Your task to perform on an android device: Open location settings Image 0: 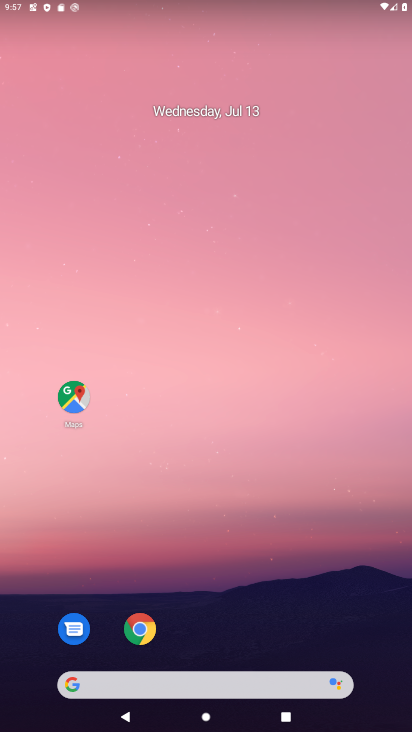
Step 0: drag from (218, 645) to (212, 72)
Your task to perform on an android device: Open location settings Image 1: 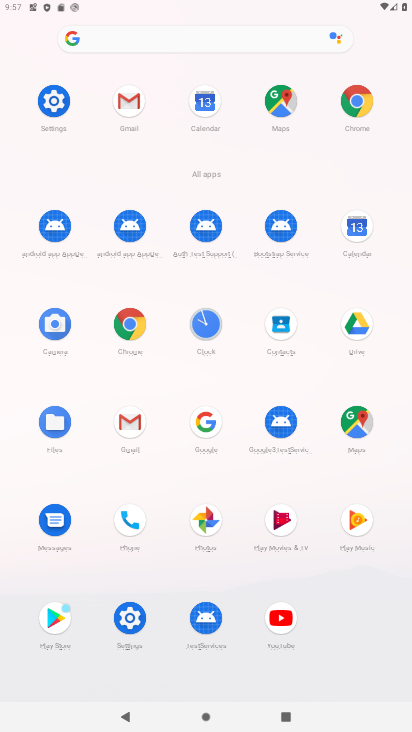
Step 1: click (124, 615)
Your task to perform on an android device: Open location settings Image 2: 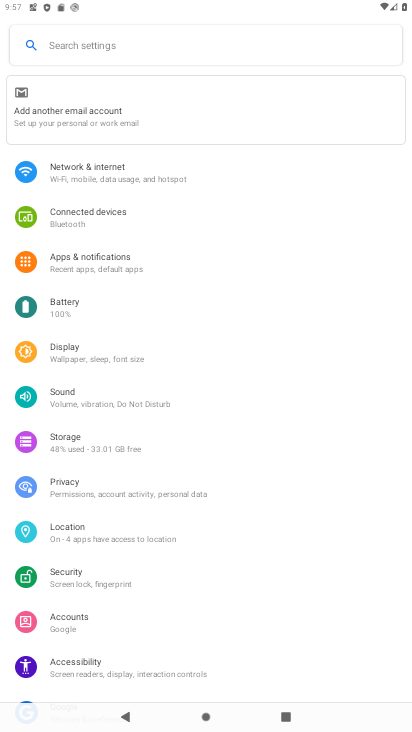
Step 2: click (104, 531)
Your task to perform on an android device: Open location settings Image 3: 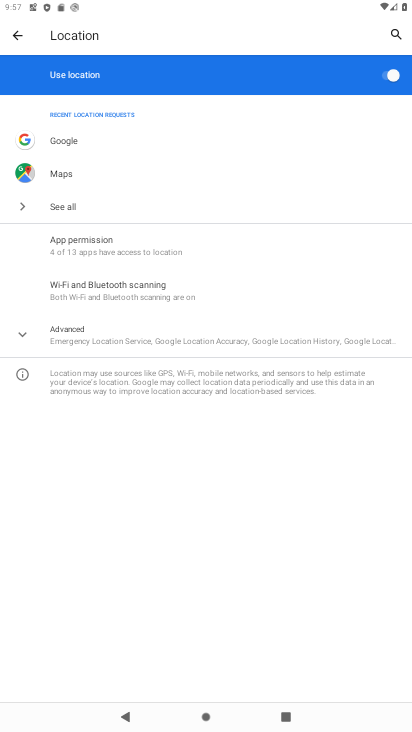
Step 3: click (25, 330)
Your task to perform on an android device: Open location settings Image 4: 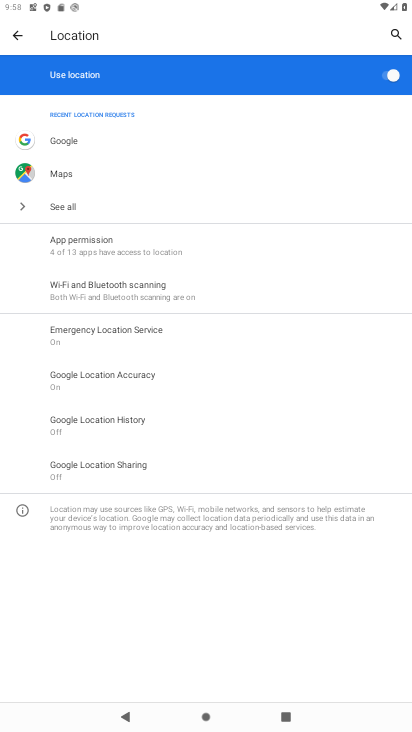
Step 4: task complete